Your task to perform on an android device: What is the news today? Image 0: 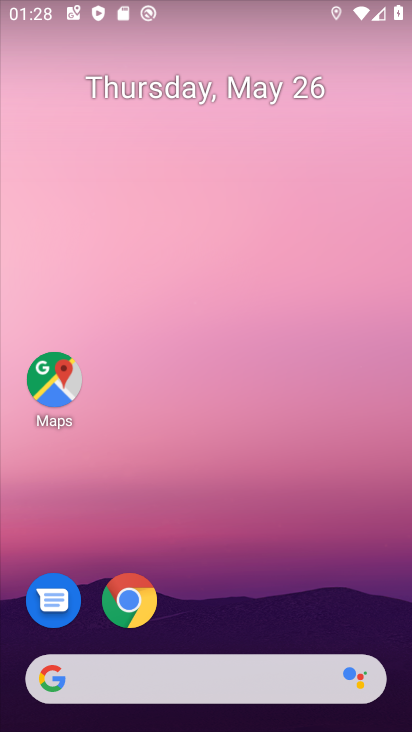
Step 0: click (263, 682)
Your task to perform on an android device: What is the news today? Image 1: 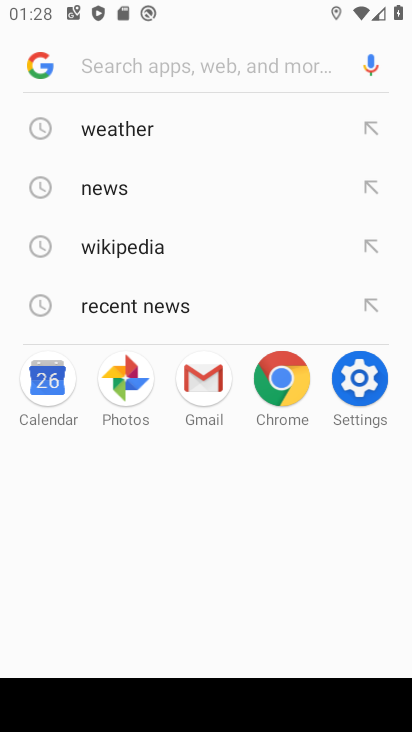
Step 1: click (181, 198)
Your task to perform on an android device: What is the news today? Image 2: 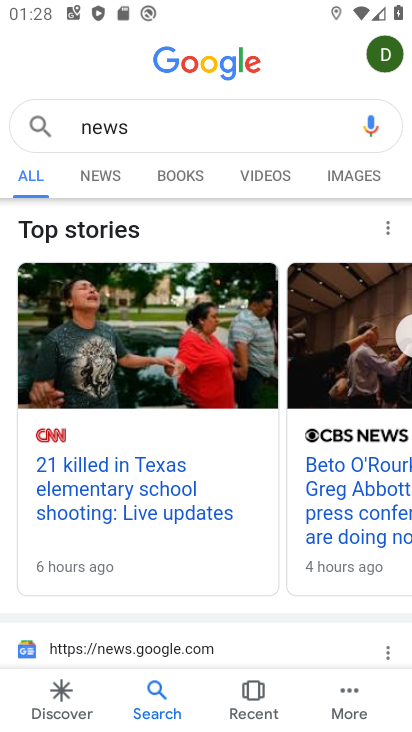
Step 2: click (184, 120)
Your task to perform on an android device: What is the news today? Image 3: 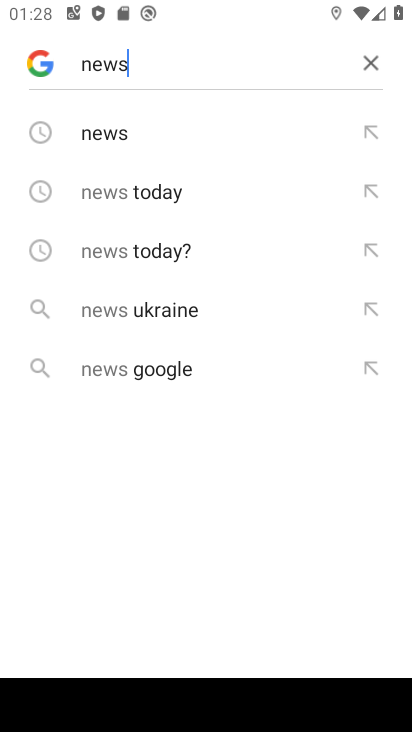
Step 3: click (124, 207)
Your task to perform on an android device: What is the news today? Image 4: 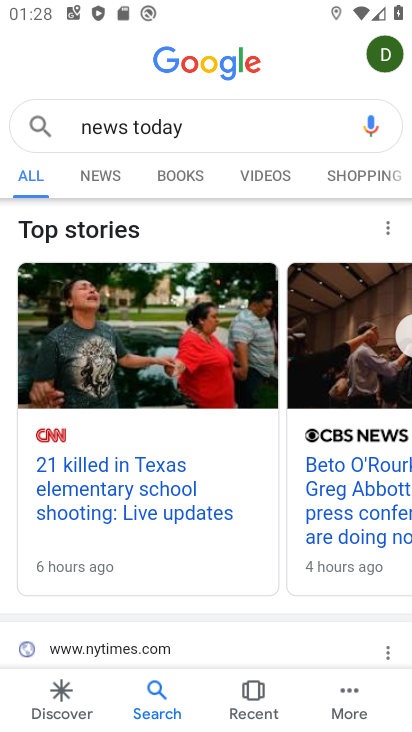
Step 4: task complete